Your task to perform on an android device: Clear the shopping cart on newegg. Search for "macbook pro 13 inch" on newegg, select the first entry, add it to the cart, then select checkout. Image 0: 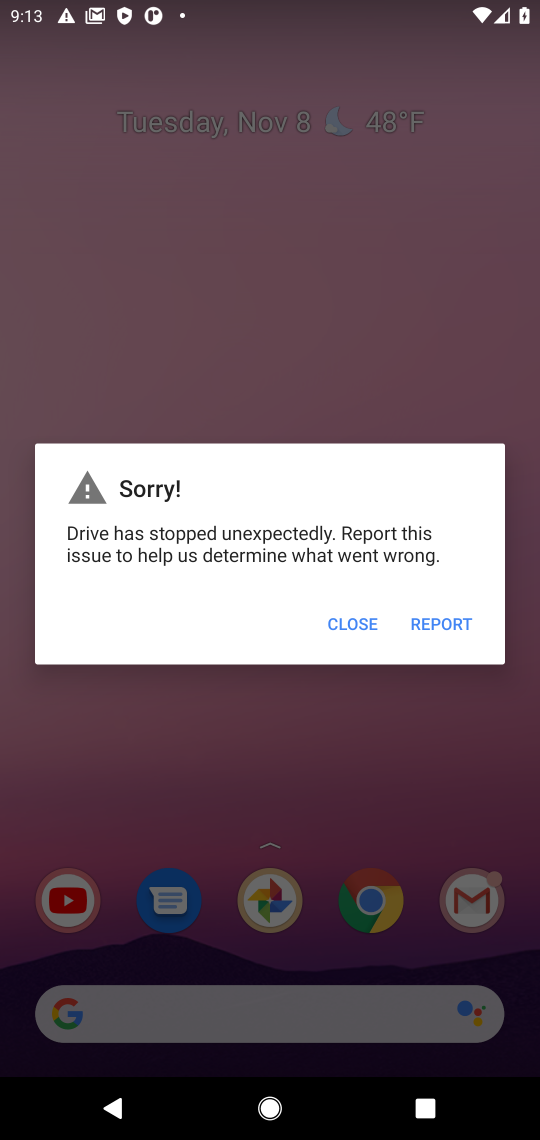
Step 0: click (329, 614)
Your task to perform on an android device: Clear the shopping cart on newegg. Search for "macbook pro 13 inch" on newegg, select the first entry, add it to the cart, then select checkout. Image 1: 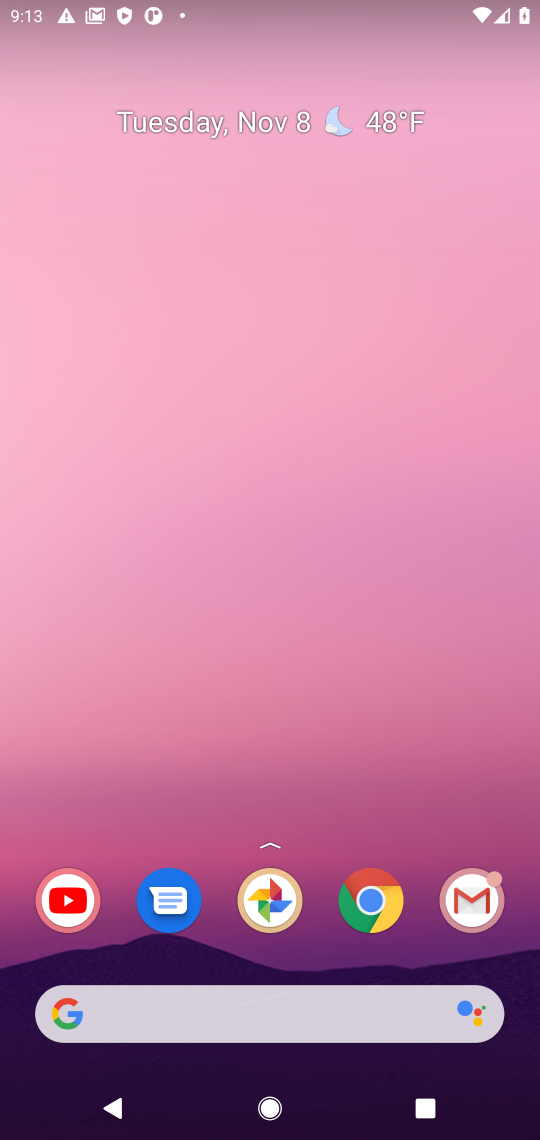
Step 1: click (360, 880)
Your task to perform on an android device: Clear the shopping cart on newegg. Search for "macbook pro 13 inch" on newegg, select the first entry, add it to the cart, then select checkout. Image 2: 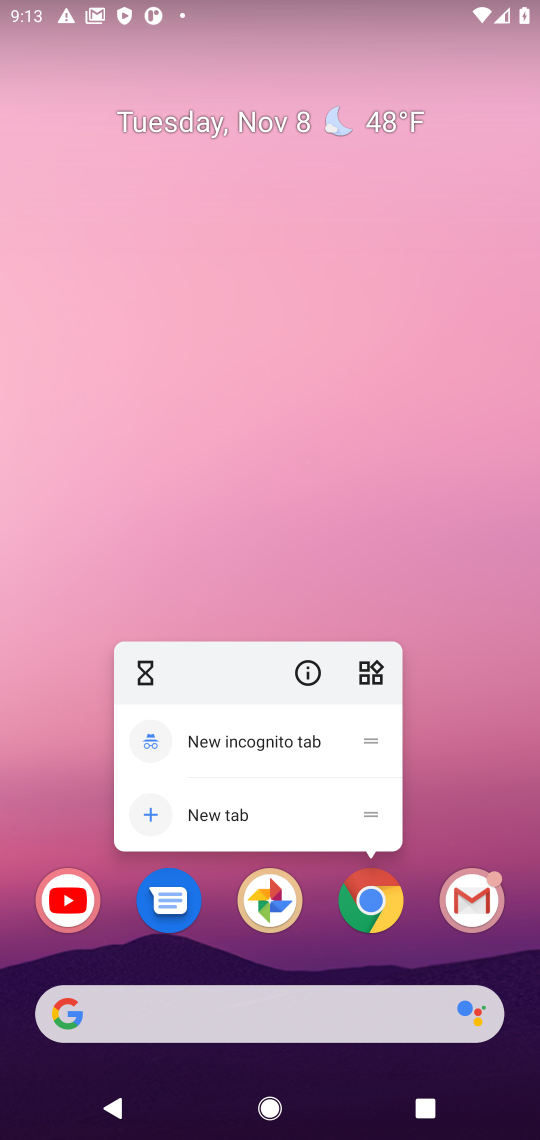
Step 2: click (363, 895)
Your task to perform on an android device: Clear the shopping cart on newegg. Search for "macbook pro 13 inch" on newegg, select the first entry, add it to the cart, then select checkout. Image 3: 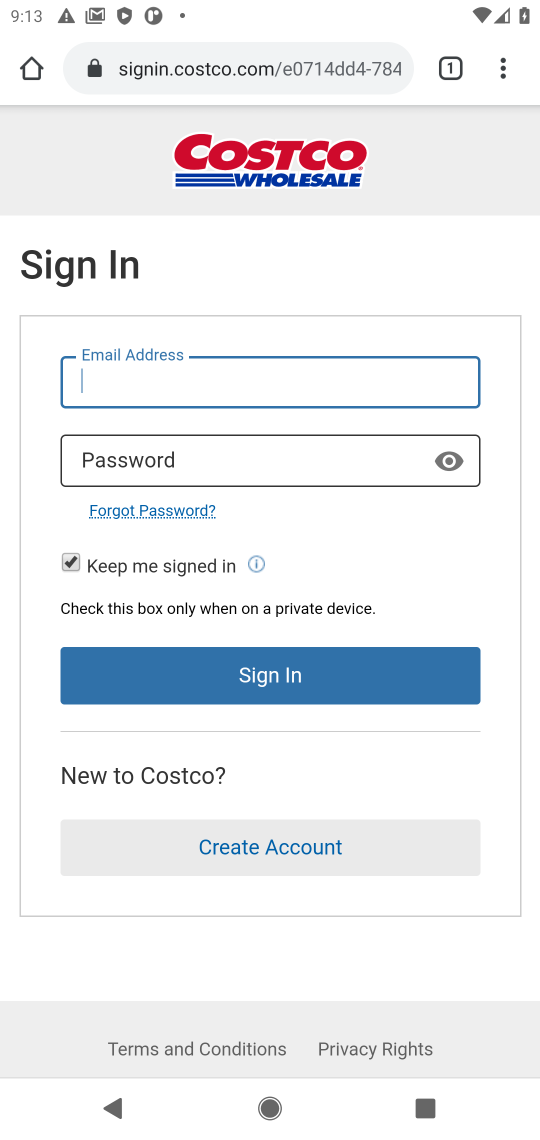
Step 3: click (204, 71)
Your task to perform on an android device: Clear the shopping cart on newegg. Search for "macbook pro 13 inch" on newegg, select the first entry, add it to the cart, then select checkout. Image 4: 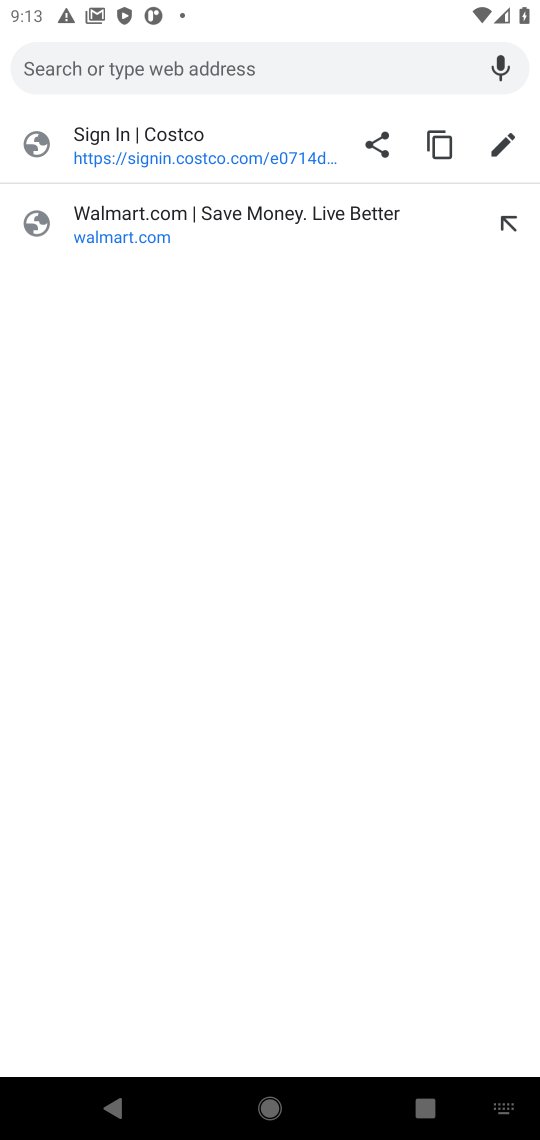
Step 4: type "newegg"
Your task to perform on an android device: Clear the shopping cart on newegg. Search for "macbook pro 13 inch" on newegg, select the first entry, add it to the cart, then select checkout. Image 5: 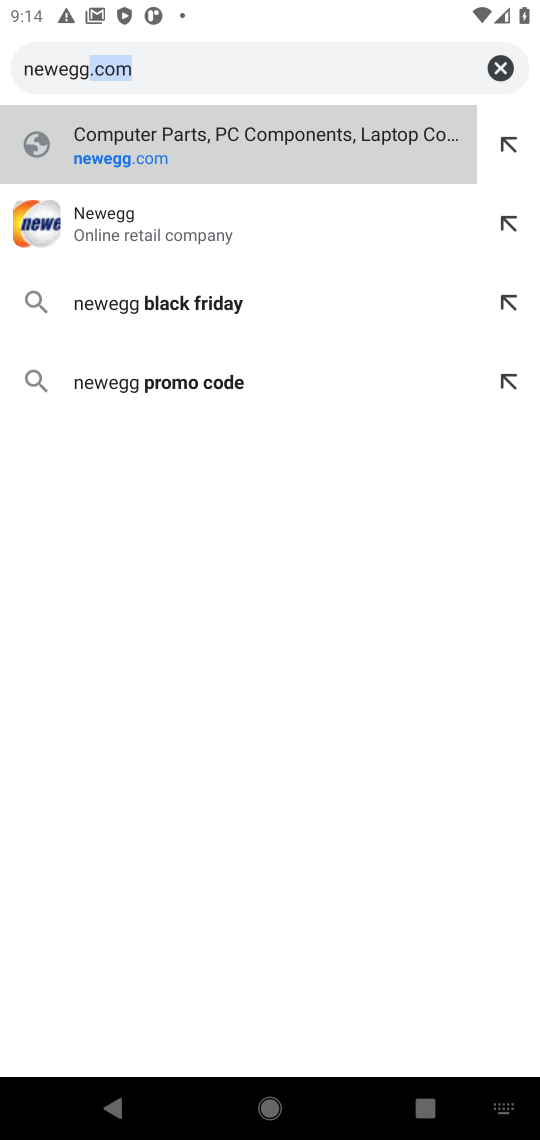
Step 5: type ""
Your task to perform on an android device: Clear the shopping cart on newegg. Search for "macbook pro 13 inch" on newegg, select the first entry, add it to the cart, then select checkout. Image 6: 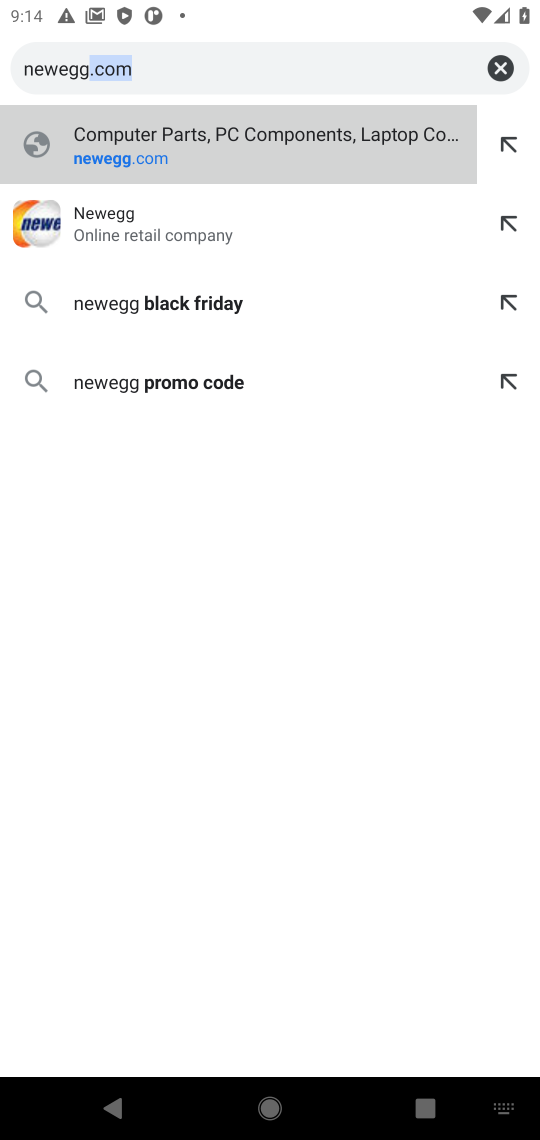
Step 6: click (108, 218)
Your task to perform on an android device: Clear the shopping cart on newegg. Search for "macbook pro 13 inch" on newegg, select the first entry, add it to the cart, then select checkout. Image 7: 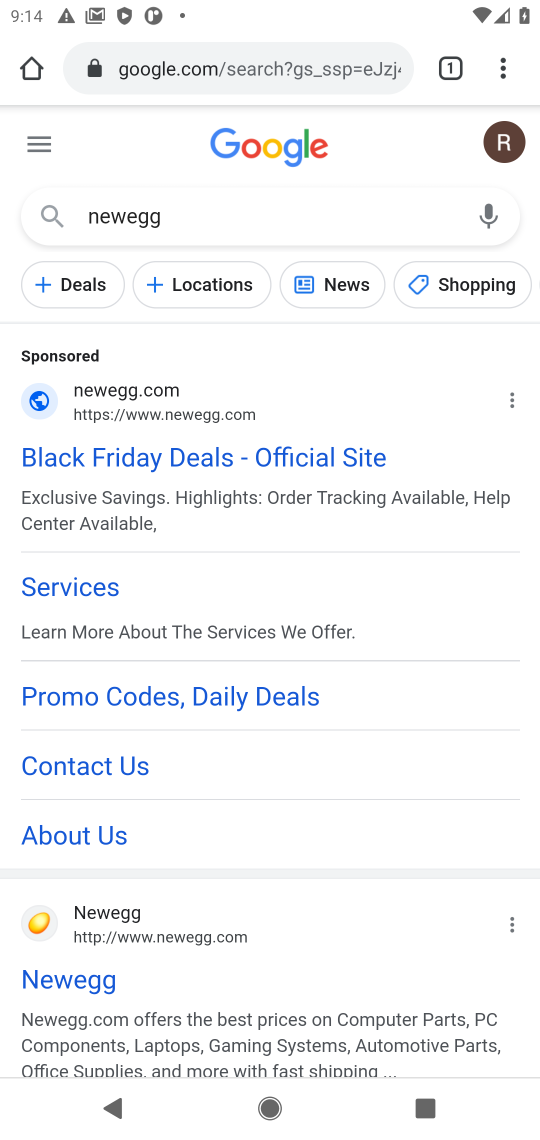
Step 7: drag from (310, 856) to (358, 351)
Your task to perform on an android device: Clear the shopping cart on newegg. Search for "macbook pro 13 inch" on newegg, select the first entry, add it to the cart, then select checkout. Image 8: 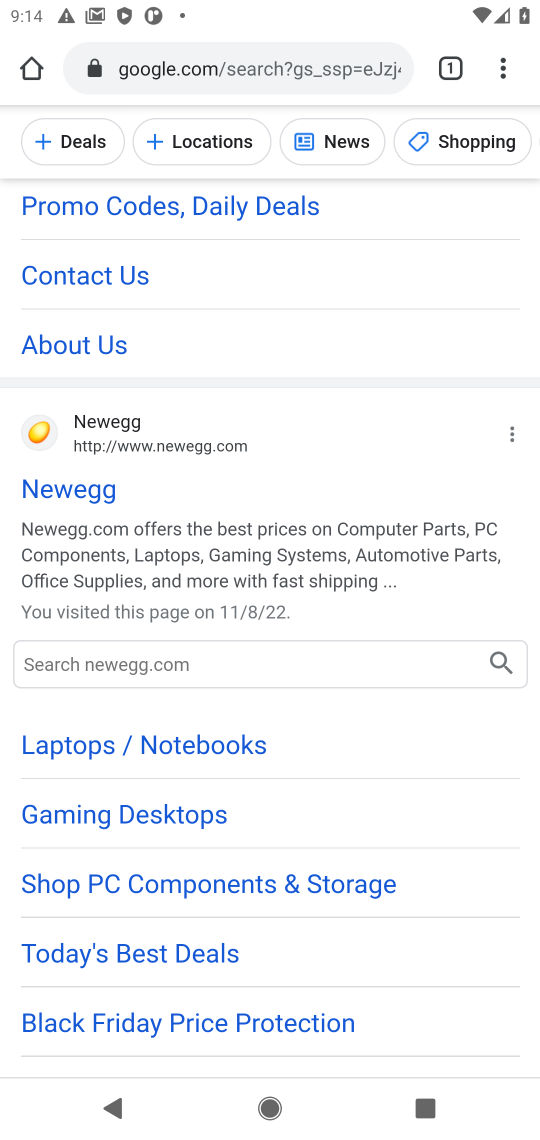
Step 8: click (60, 485)
Your task to perform on an android device: Clear the shopping cart on newegg. Search for "macbook pro 13 inch" on newegg, select the first entry, add it to the cart, then select checkout. Image 9: 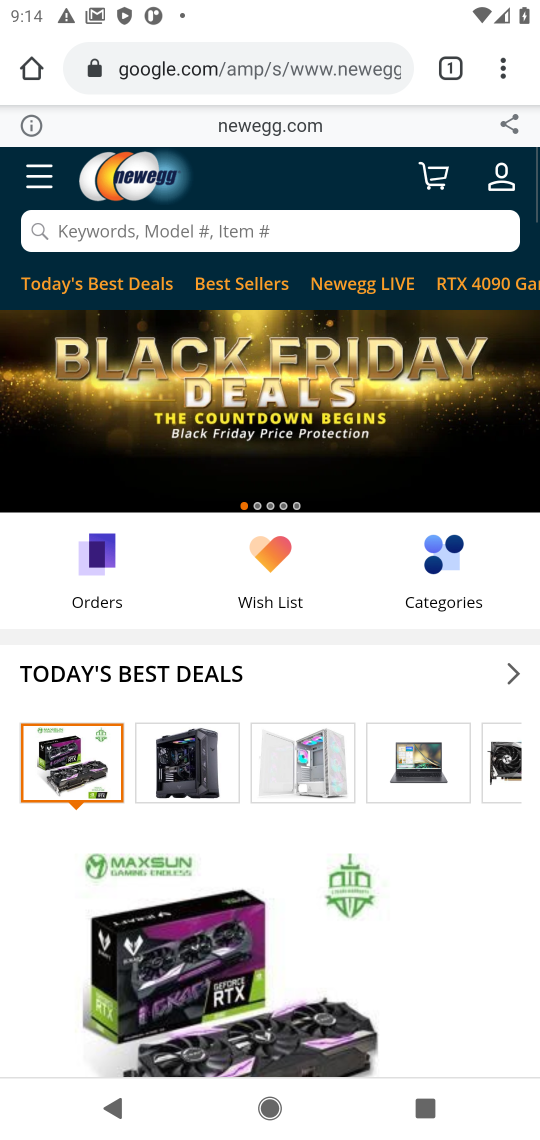
Step 9: click (208, 235)
Your task to perform on an android device: Clear the shopping cart on newegg. Search for "macbook pro 13 inch" on newegg, select the first entry, add it to the cart, then select checkout. Image 10: 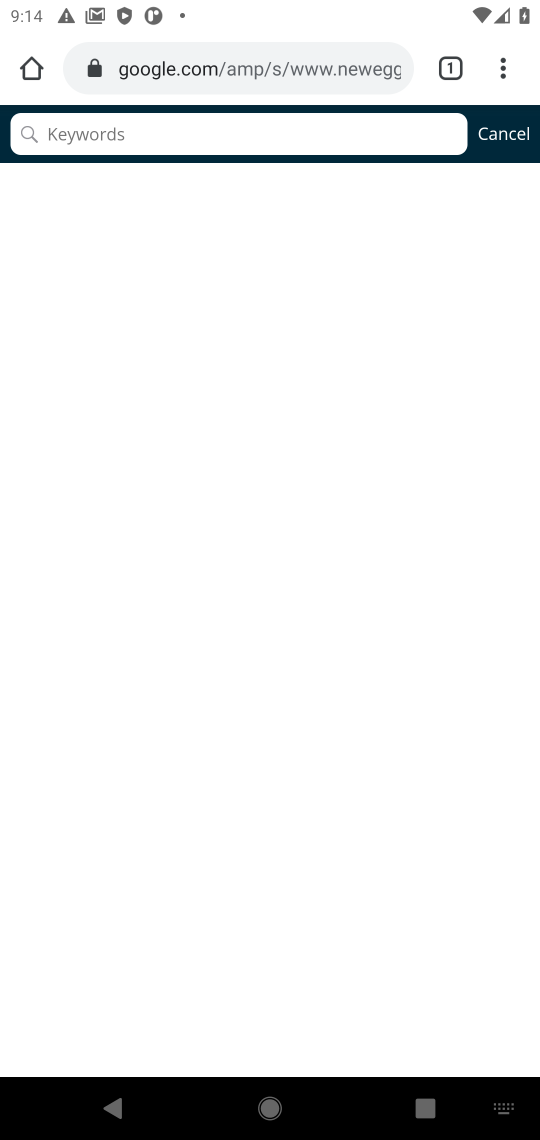
Step 10: type "macbook pro 13 inch"
Your task to perform on an android device: Clear the shopping cart on newegg. Search for "macbook pro 13 inch" on newegg, select the first entry, add it to the cart, then select checkout. Image 11: 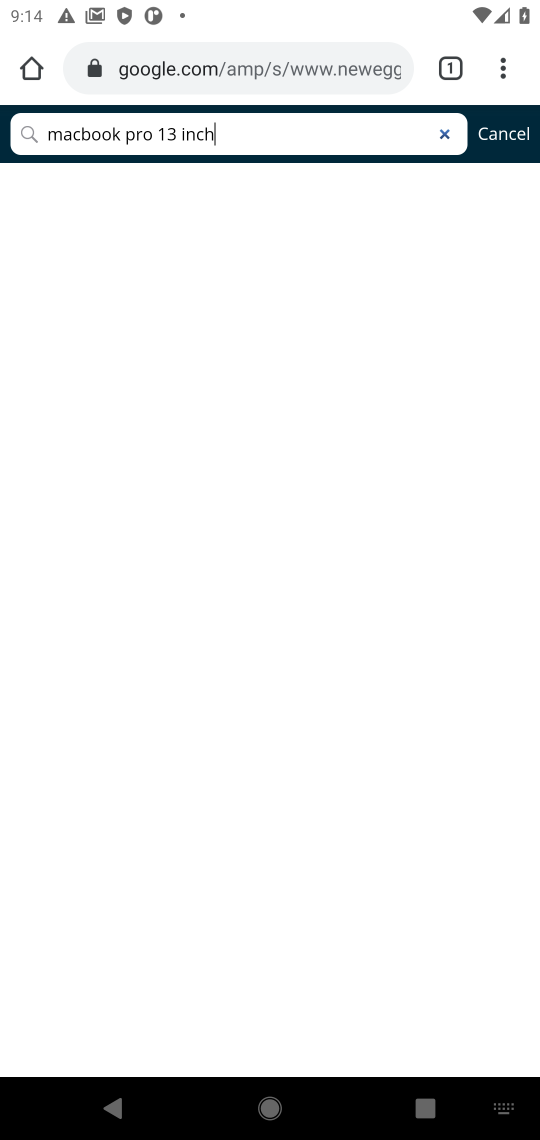
Step 11: type ""
Your task to perform on an android device: Clear the shopping cart on newegg. Search for "macbook pro 13 inch" on newegg, select the first entry, add it to the cart, then select checkout. Image 12: 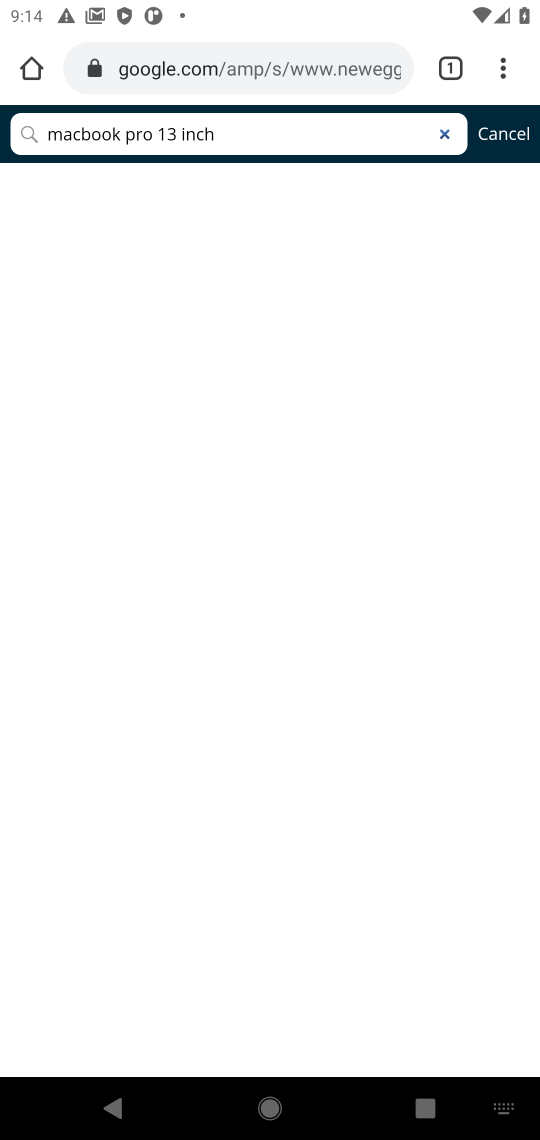
Step 12: click (447, 133)
Your task to perform on an android device: Clear the shopping cart on newegg. Search for "macbook pro 13 inch" on newegg, select the first entry, add it to the cart, then select checkout. Image 13: 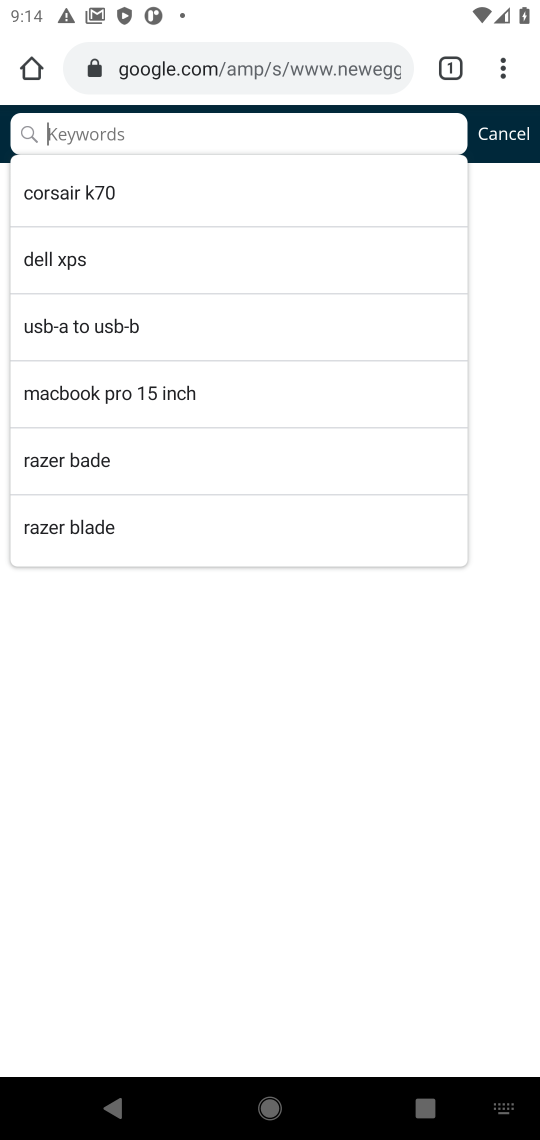
Step 13: click (166, 394)
Your task to perform on an android device: Clear the shopping cart on newegg. Search for "macbook pro 13 inch" on newegg, select the first entry, add it to the cart, then select checkout. Image 14: 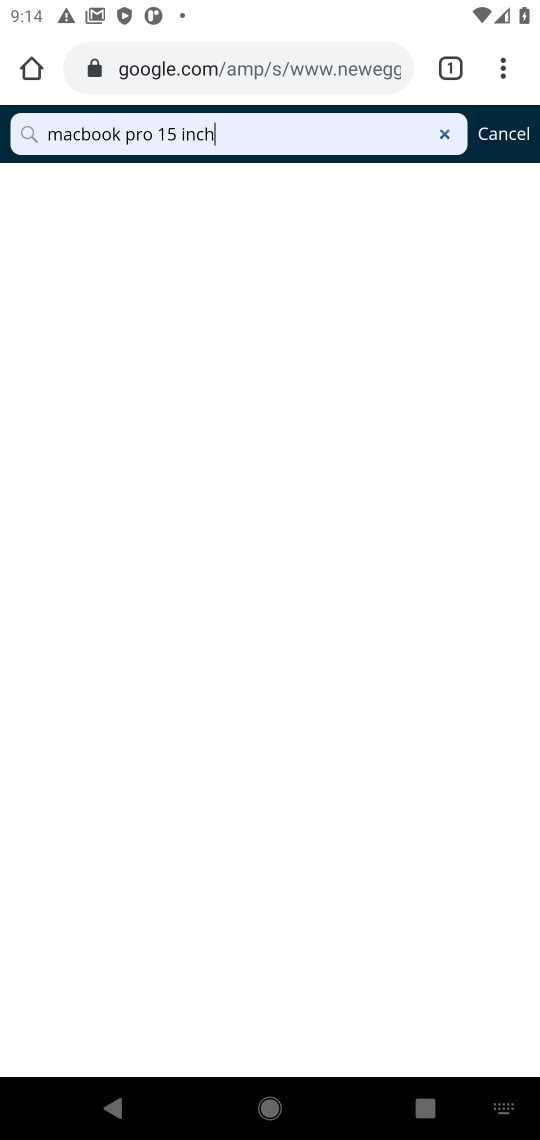
Step 14: press back button
Your task to perform on an android device: Clear the shopping cart on newegg. Search for "macbook pro 13 inch" on newegg, select the first entry, add it to the cart, then select checkout. Image 15: 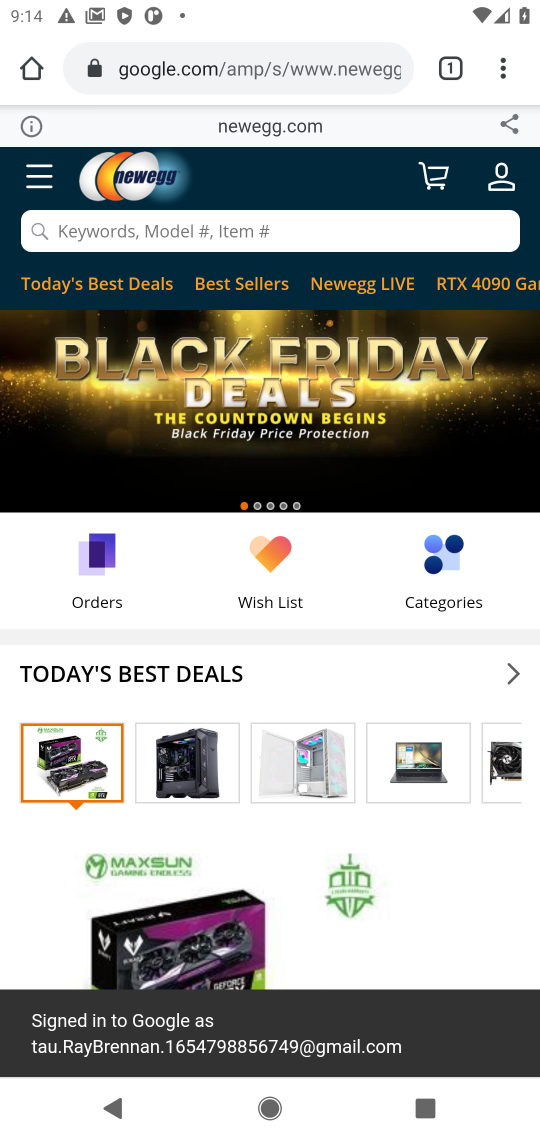
Step 15: drag from (244, 744) to (397, 330)
Your task to perform on an android device: Clear the shopping cart on newegg. Search for "macbook pro 13 inch" on newegg, select the first entry, add it to the cart, then select checkout. Image 16: 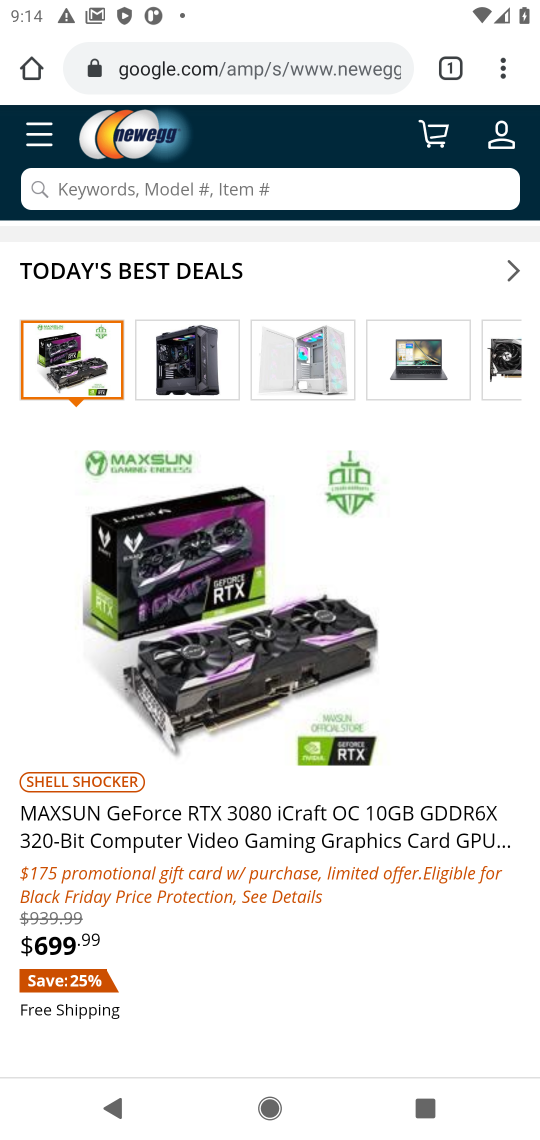
Step 16: press back button
Your task to perform on an android device: Clear the shopping cart on newegg. Search for "macbook pro 13 inch" on newegg, select the first entry, add it to the cart, then select checkout. Image 17: 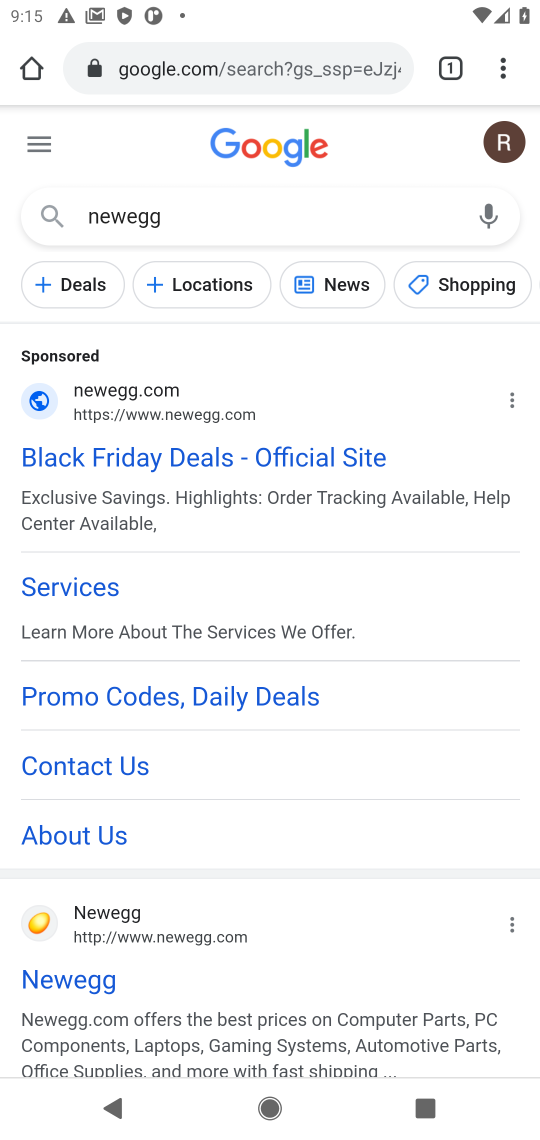
Step 17: click (120, 455)
Your task to perform on an android device: Clear the shopping cart on newegg. Search for "macbook pro 13 inch" on newegg, select the first entry, add it to the cart, then select checkout. Image 18: 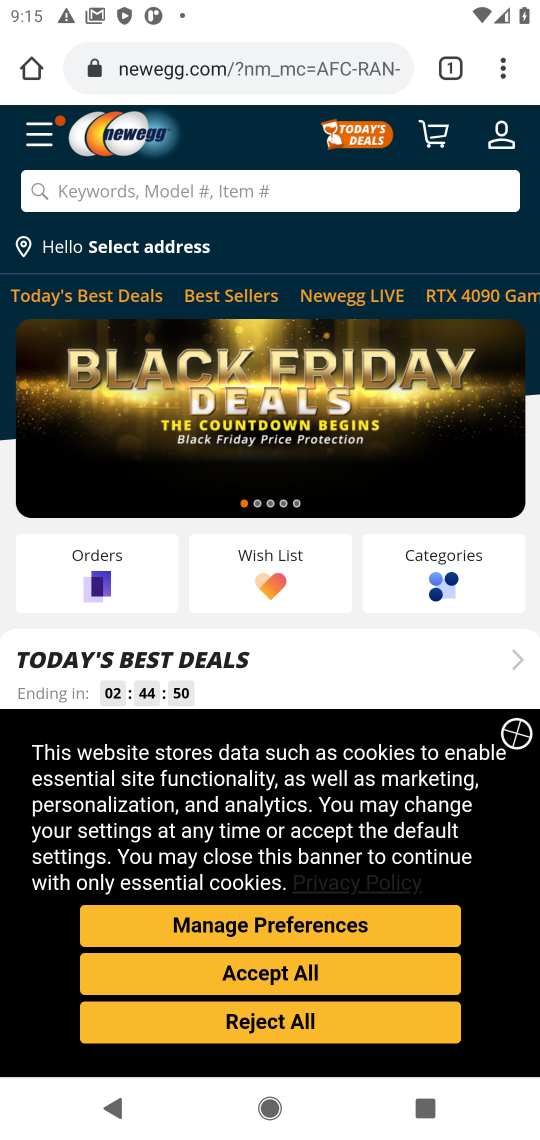
Step 18: click (167, 192)
Your task to perform on an android device: Clear the shopping cart on newegg. Search for "macbook pro 13 inch" on newegg, select the first entry, add it to the cart, then select checkout. Image 19: 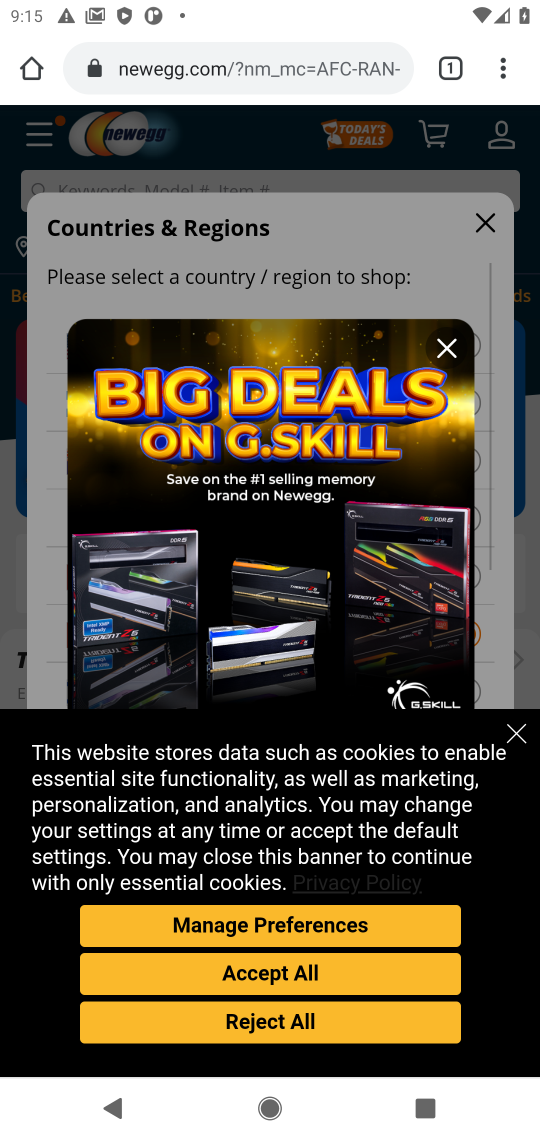
Step 19: click (481, 227)
Your task to perform on an android device: Clear the shopping cart on newegg. Search for "macbook pro 13 inch" on newegg, select the first entry, add it to the cart, then select checkout. Image 20: 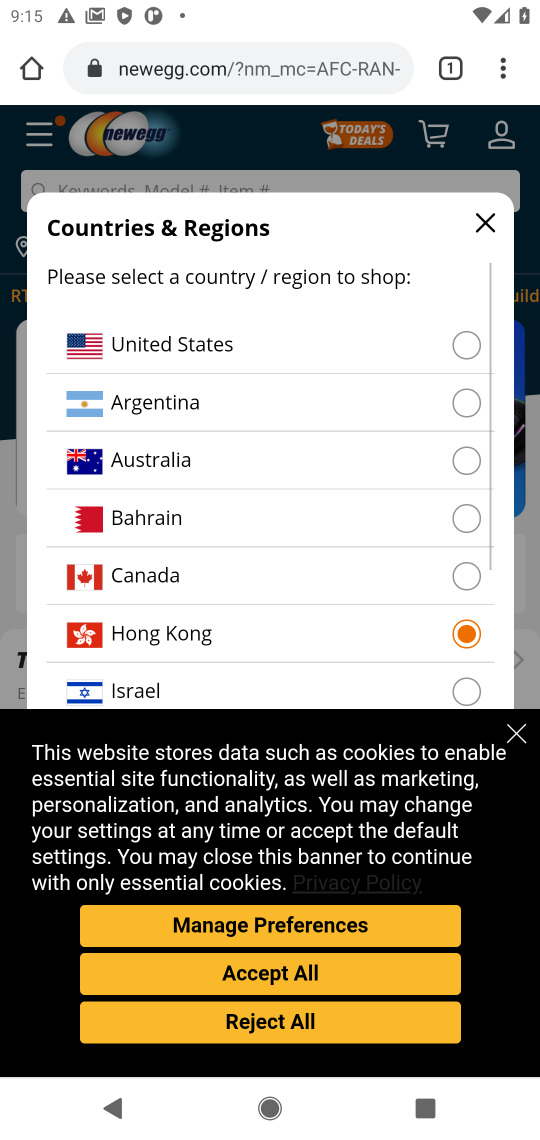
Step 20: click (196, 345)
Your task to perform on an android device: Clear the shopping cart on newegg. Search for "macbook pro 13 inch" on newegg, select the first entry, add it to the cart, then select checkout. Image 21: 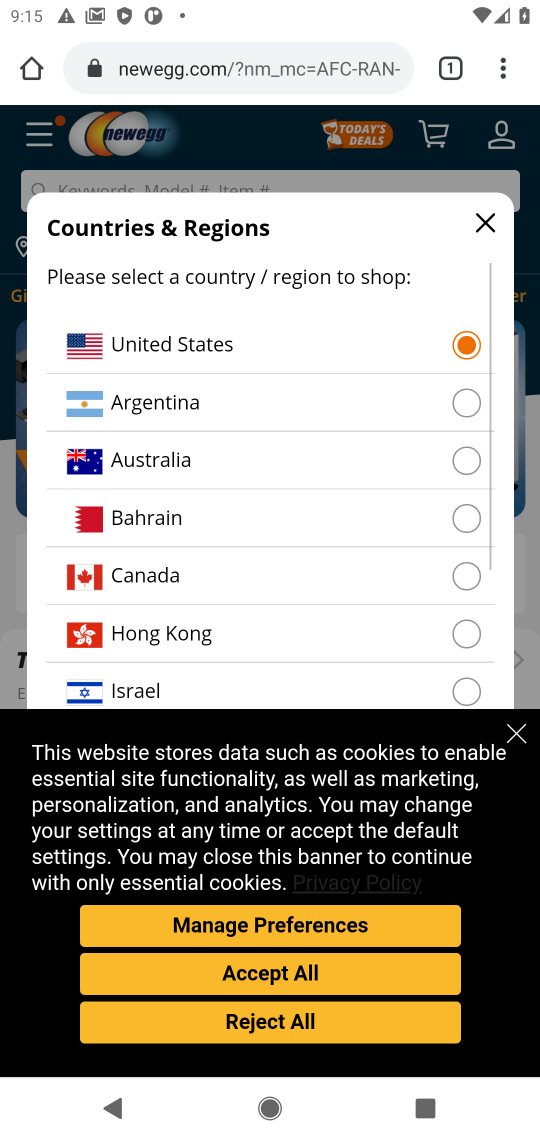
Step 21: click (519, 732)
Your task to perform on an android device: Clear the shopping cart on newegg. Search for "macbook pro 13 inch" on newegg, select the first entry, add it to the cart, then select checkout. Image 22: 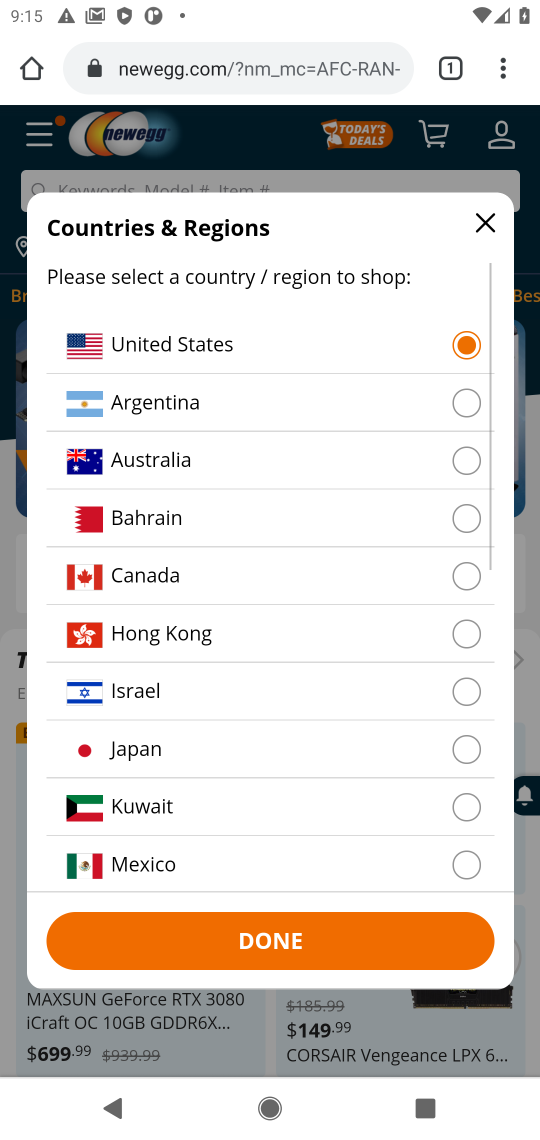
Step 22: click (383, 939)
Your task to perform on an android device: Clear the shopping cart on newegg. Search for "macbook pro 13 inch" on newegg, select the first entry, add it to the cart, then select checkout. Image 23: 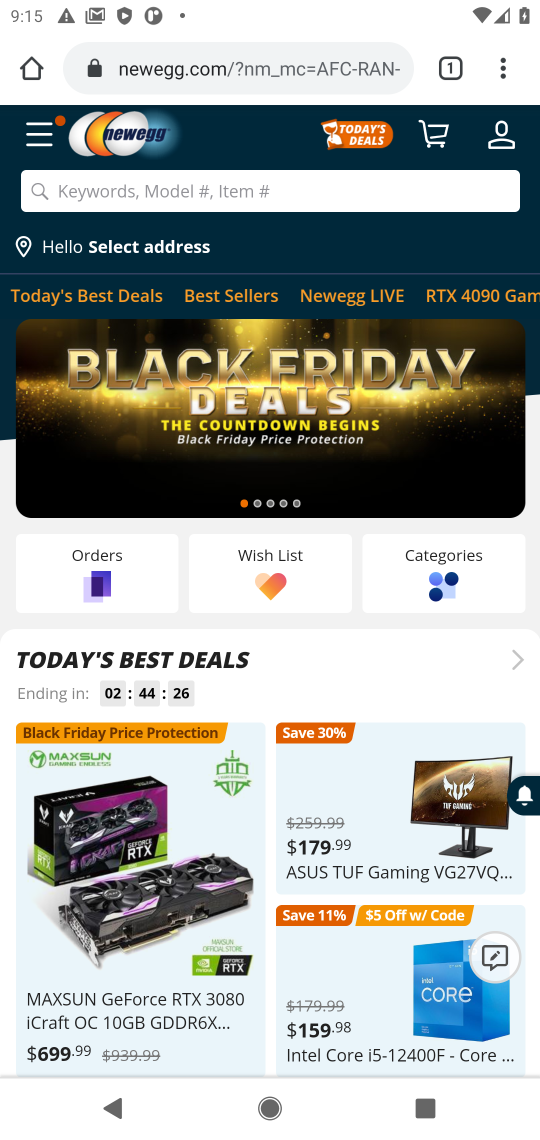
Step 23: click (213, 198)
Your task to perform on an android device: Clear the shopping cart on newegg. Search for "macbook pro 13 inch" on newegg, select the first entry, add it to the cart, then select checkout. Image 24: 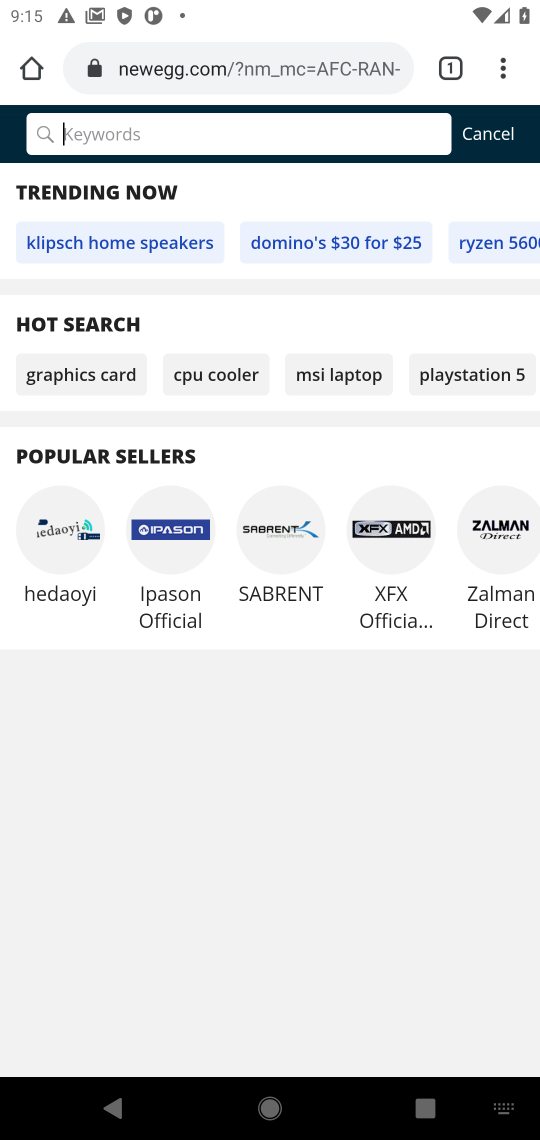
Step 24: type "macbook pro 13"
Your task to perform on an android device: Clear the shopping cart on newegg. Search for "macbook pro 13 inch" on newegg, select the first entry, add it to the cart, then select checkout. Image 25: 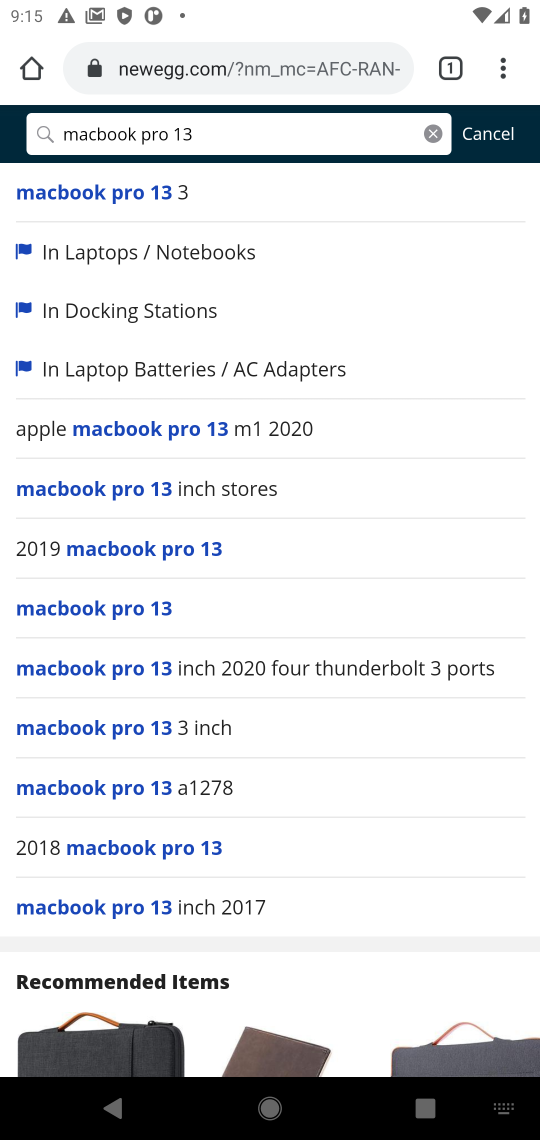
Step 25: click (69, 600)
Your task to perform on an android device: Clear the shopping cart on newegg. Search for "macbook pro 13 inch" on newegg, select the first entry, add it to the cart, then select checkout. Image 26: 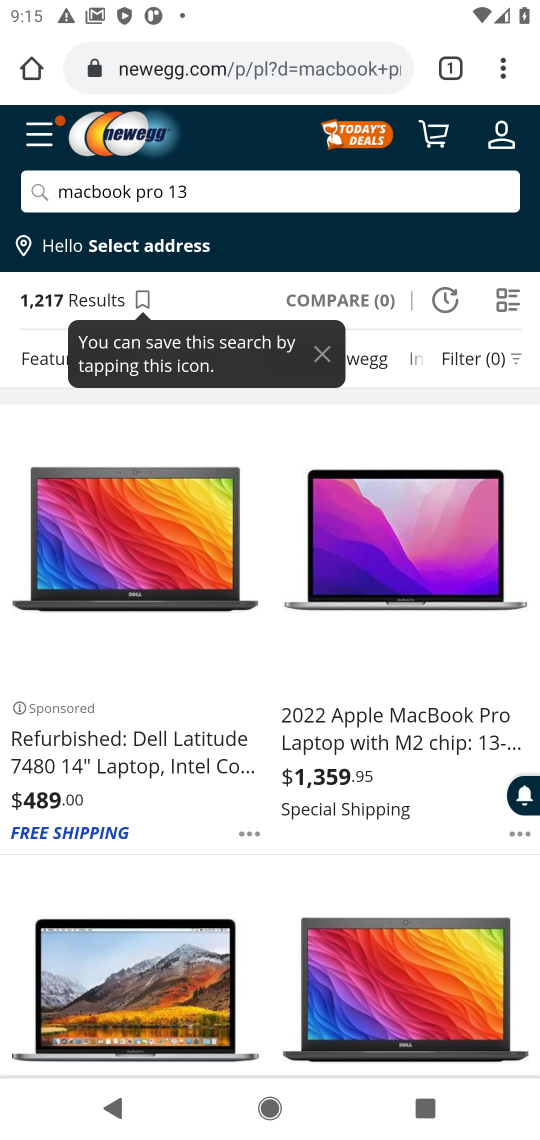
Step 26: click (386, 538)
Your task to perform on an android device: Clear the shopping cart on newegg. Search for "macbook pro 13 inch" on newegg, select the first entry, add it to the cart, then select checkout. Image 27: 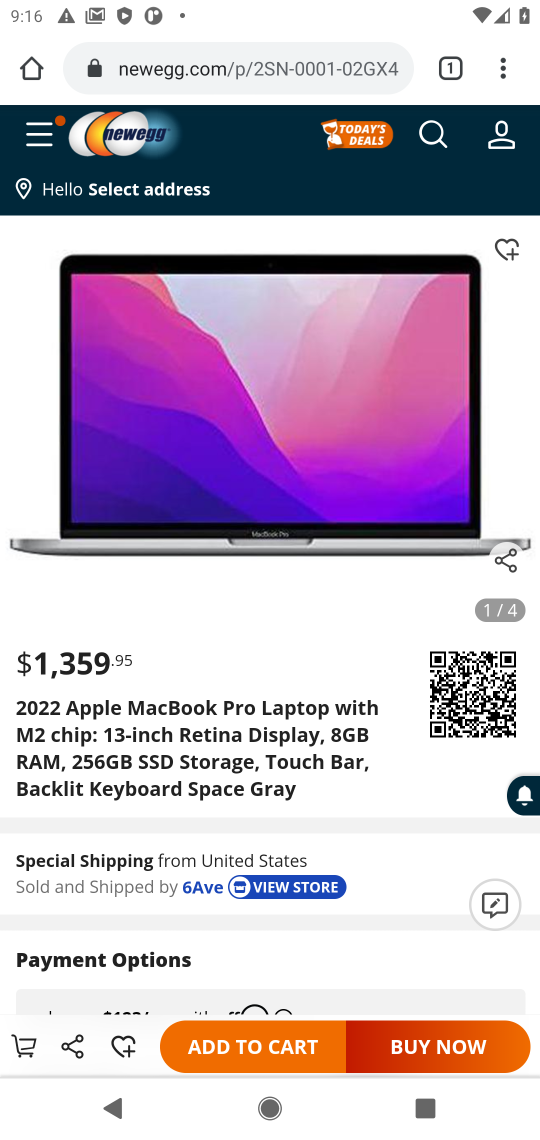
Step 27: click (278, 1045)
Your task to perform on an android device: Clear the shopping cart on newegg. Search for "macbook pro 13 inch" on newegg, select the first entry, add it to the cart, then select checkout. Image 28: 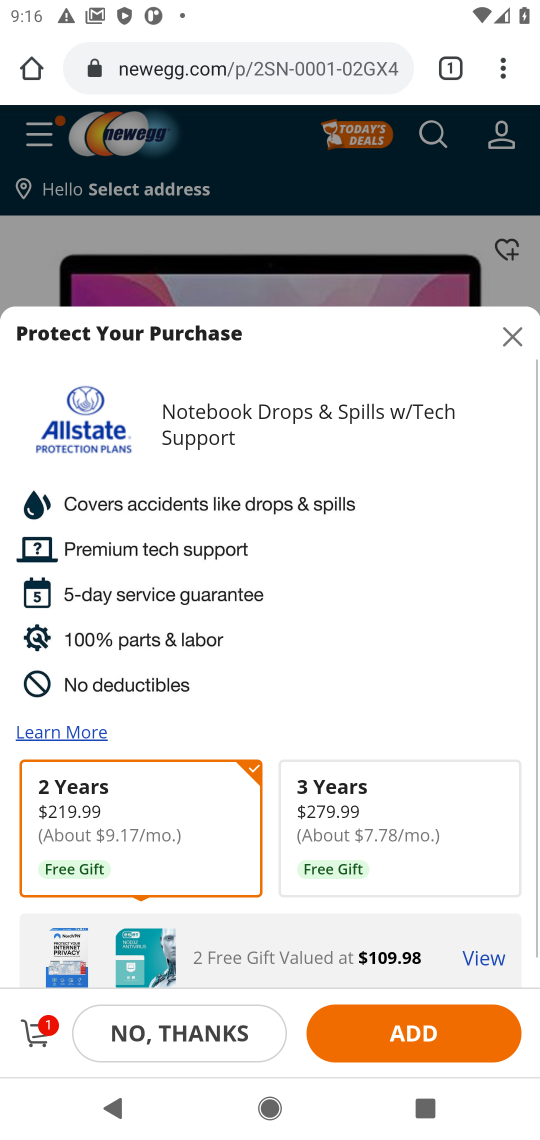
Step 28: click (27, 1028)
Your task to perform on an android device: Clear the shopping cart on newegg. Search for "macbook pro 13 inch" on newegg, select the first entry, add it to the cart, then select checkout. Image 29: 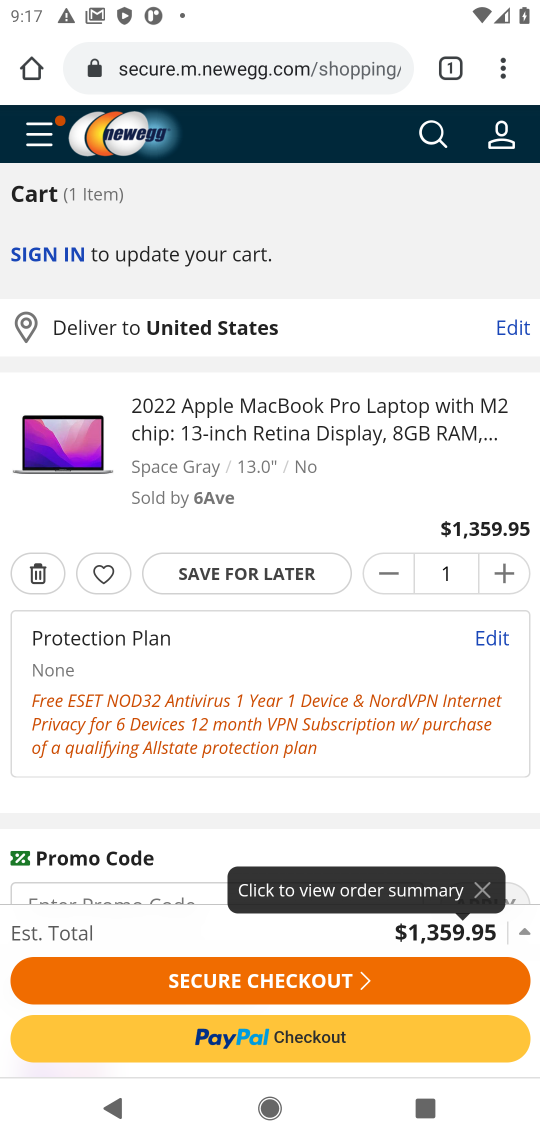
Step 29: task complete